Your task to perform on an android device: Open the phone app and click the voicemail tab. Image 0: 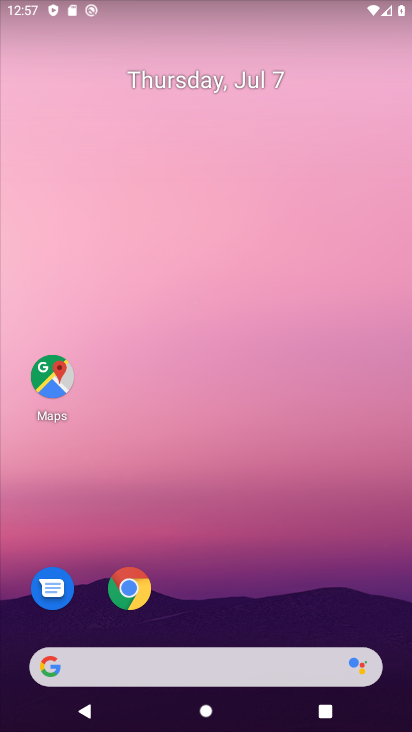
Step 0: drag from (288, 529) to (277, 275)
Your task to perform on an android device: Open the phone app and click the voicemail tab. Image 1: 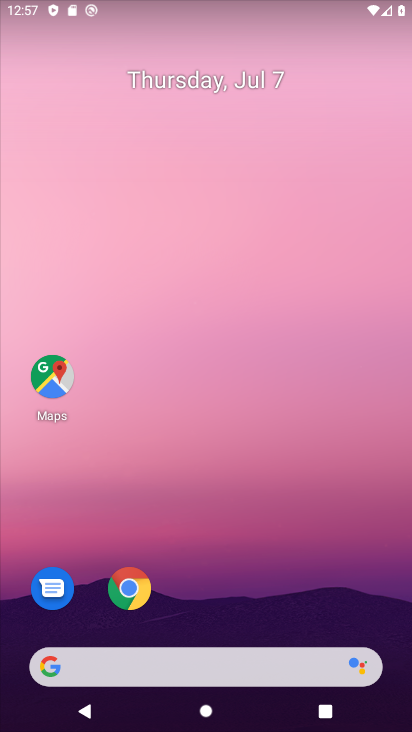
Step 1: drag from (160, 636) to (266, 157)
Your task to perform on an android device: Open the phone app and click the voicemail tab. Image 2: 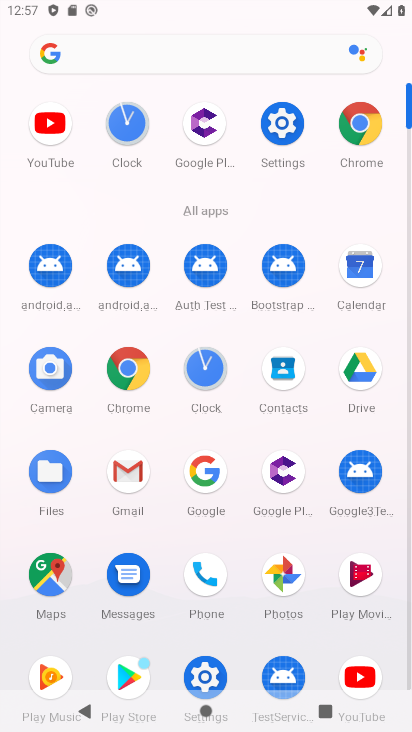
Step 2: click (195, 573)
Your task to perform on an android device: Open the phone app and click the voicemail tab. Image 3: 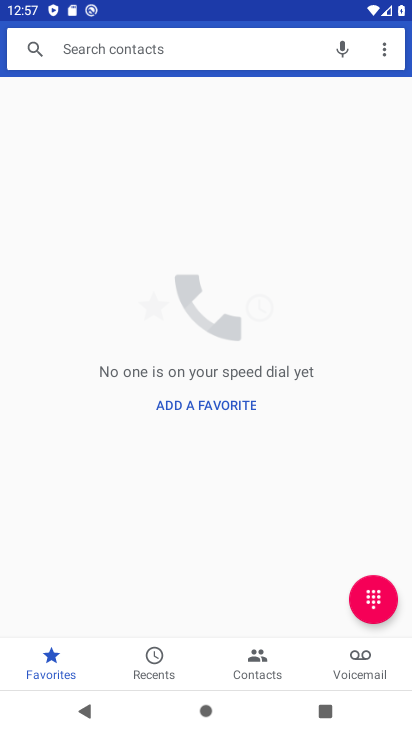
Step 3: click (346, 673)
Your task to perform on an android device: Open the phone app and click the voicemail tab. Image 4: 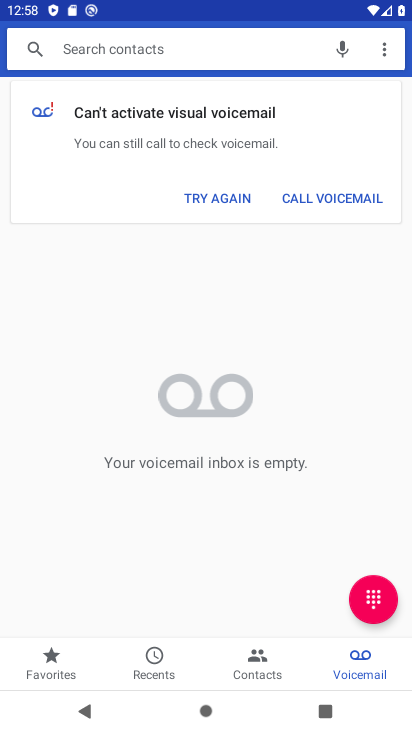
Step 4: task complete